Your task to perform on an android device: make emails show in primary in the gmail app Image 0: 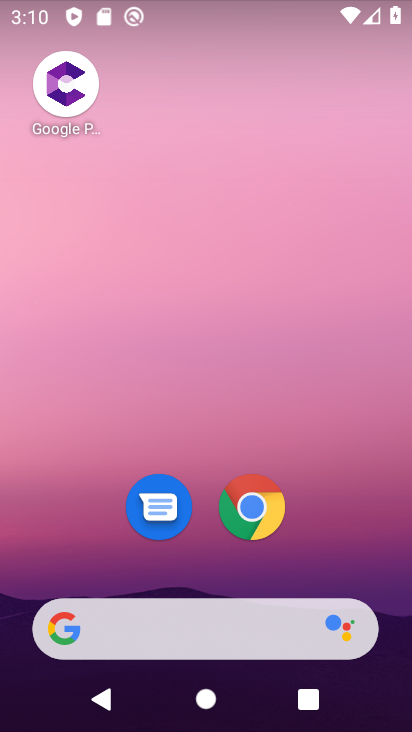
Step 0: drag from (345, 259) to (310, 25)
Your task to perform on an android device: make emails show in primary in the gmail app Image 1: 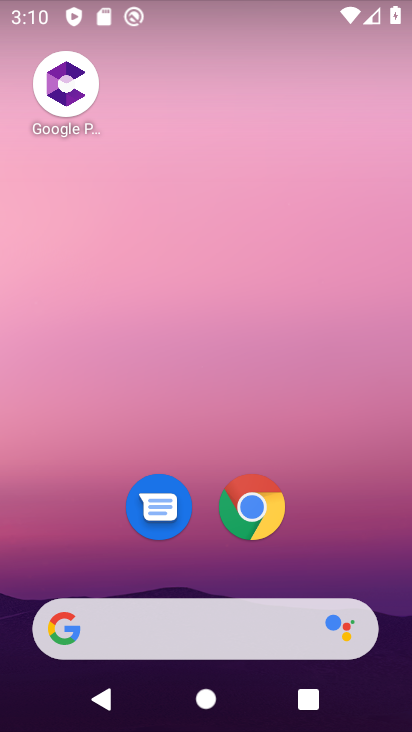
Step 1: drag from (320, 443) to (250, 11)
Your task to perform on an android device: make emails show in primary in the gmail app Image 2: 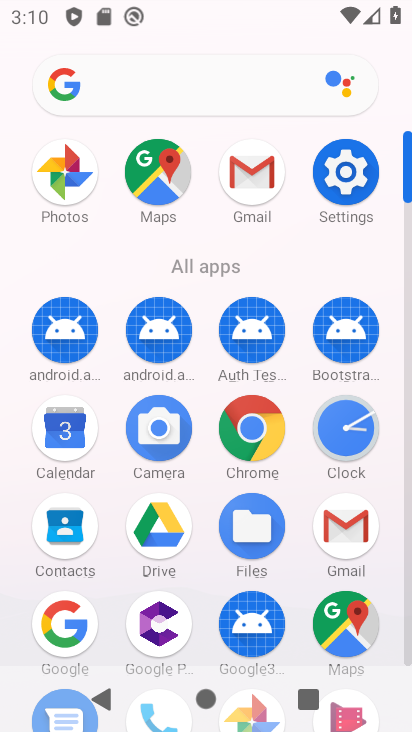
Step 2: click (248, 177)
Your task to perform on an android device: make emails show in primary in the gmail app Image 3: 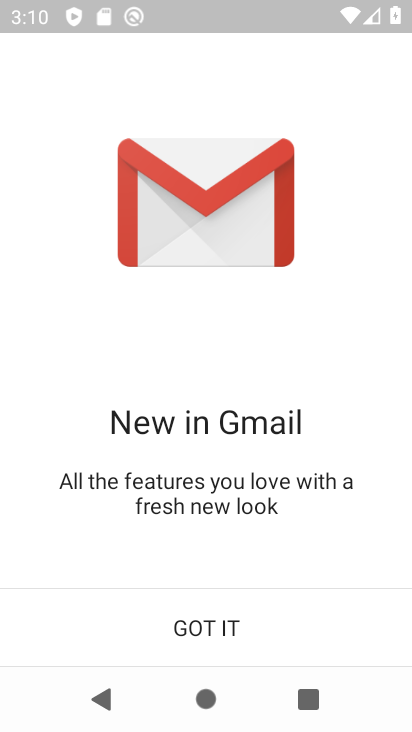
Step 3: click (196, 618)
Your task to perform on an android device: make emails show in primary in the gmail app Image 4: 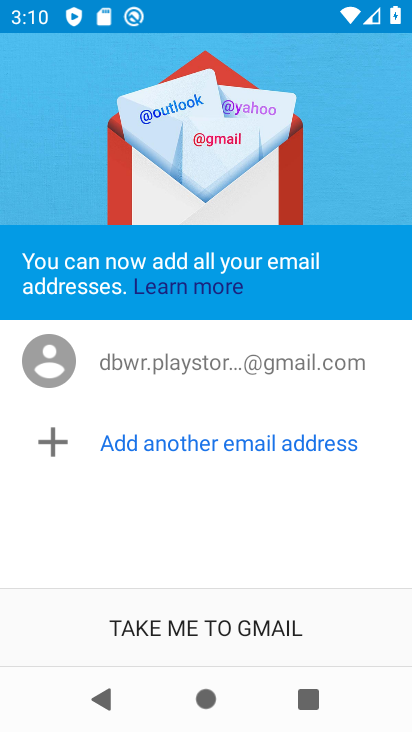
Step 4: click (210, 625)
Your task to perform on an android device: make emails show in primary in the gmail app Image 5: 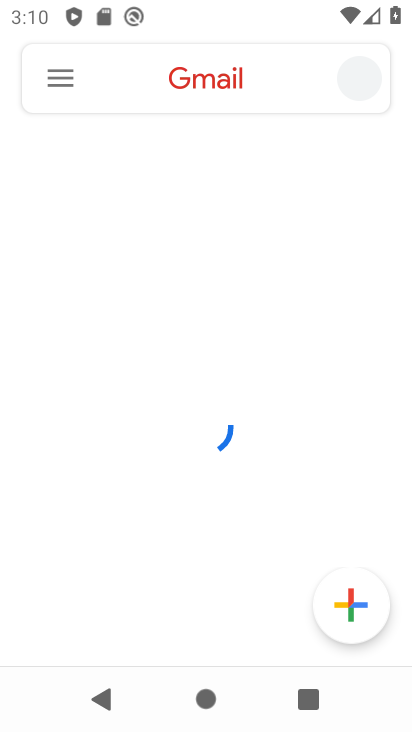
Step 5: click (53, 77)
Your task to perform on an android device: make emails show in primary in the gmail app Image 6: 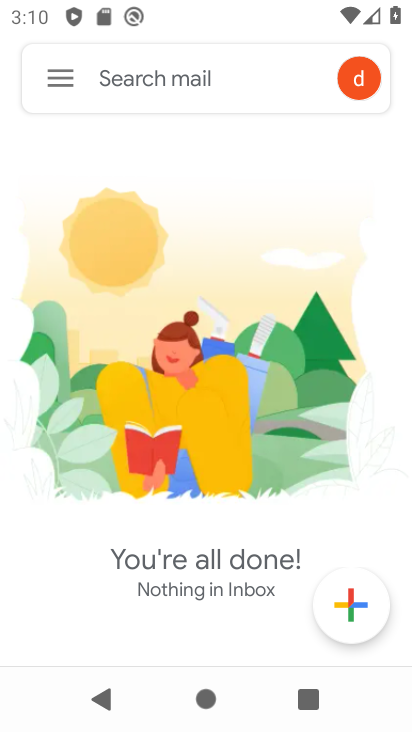
Step 6: click (56, 76)
Your task to perform on an android device: make emails show in primary in the gmail app Image 7: 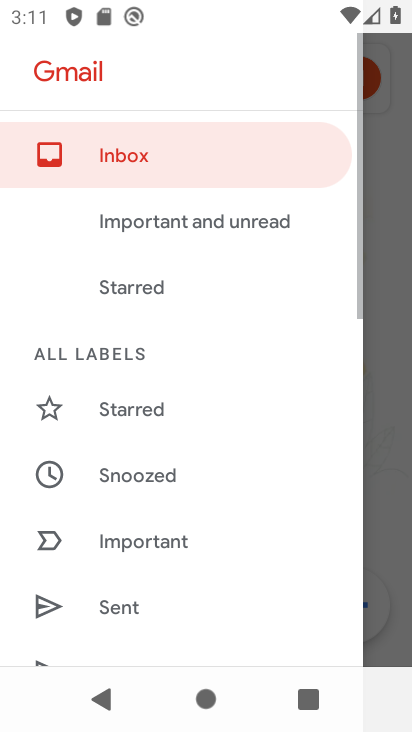
Step 7: drag from (237, 640) to (233, 0)
Your task to perform on an android device: make emails show in primary in the gmail app Image 8: 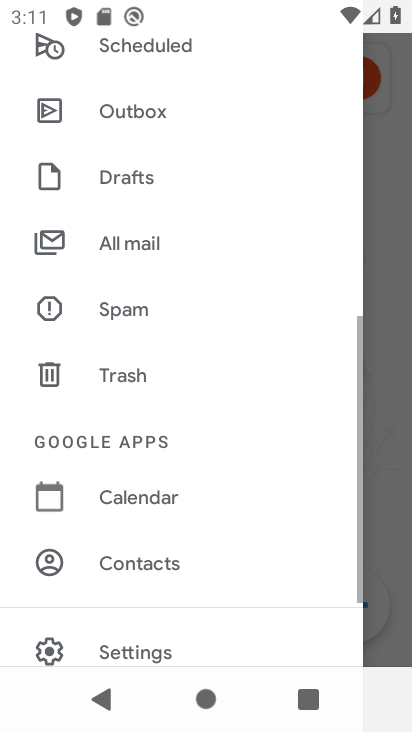
Step 8: click (170, 655)
Your task to perform on an android device: make emails show in primary in the gmail app Image 9: 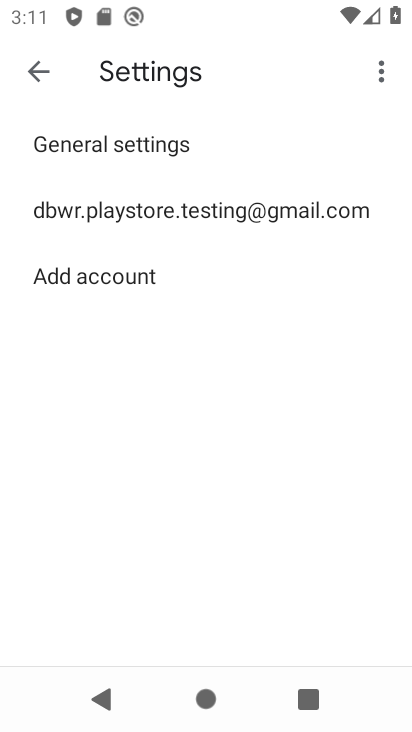
Step 9: click (134, 206)
Your task to perform on an android device: make emails show in primary in the gmail app Image 10: 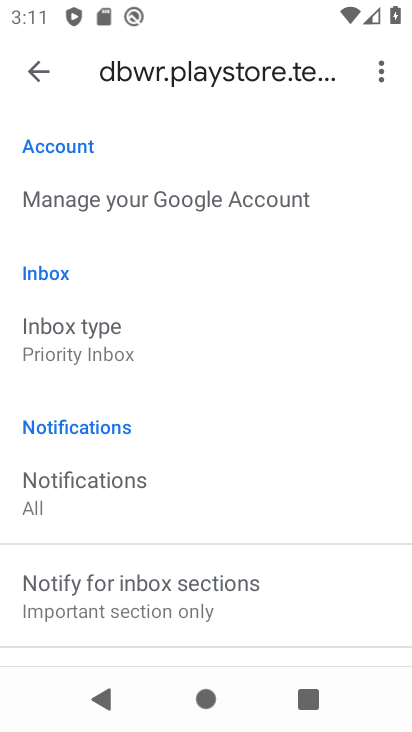
Step 10: click (38, 345)
Your task to perform on an android device: make emails show in primary in the gmail app Image 11: 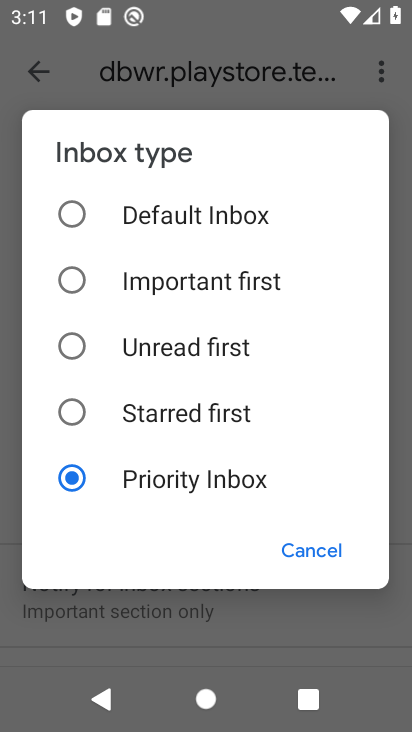
Step 11: click (76, 215)
Your task to perform on an android device: make emails show in primary in the gmail app Image 12: 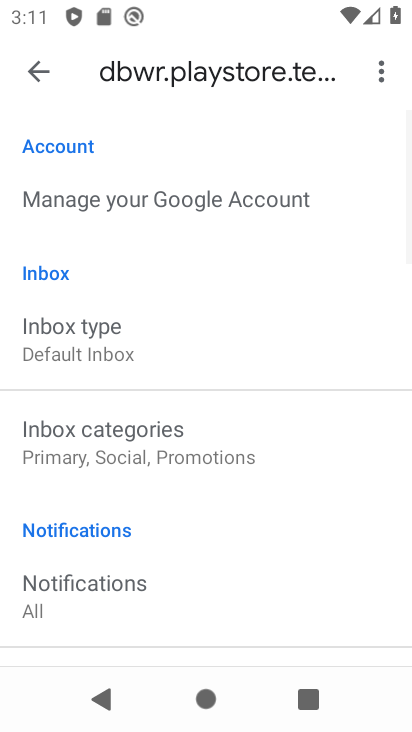
Step 12: click (112, 451)
Your task to perform on an android device: make emails show in primary in the gmail app Image 13: 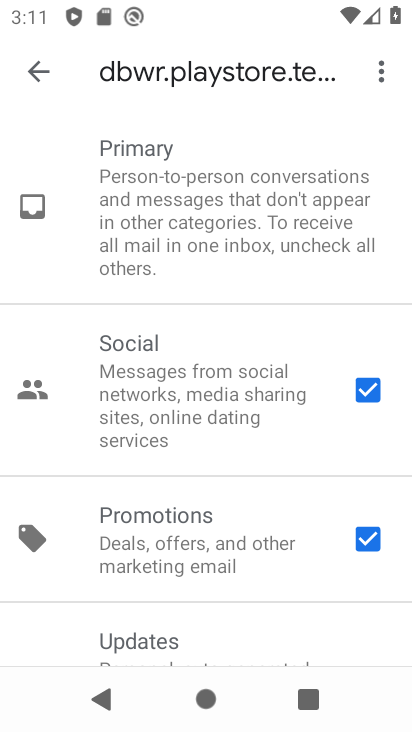
Step 13: click (361, 396)
Your task to perform on an android device: make emails show in primary in the gmail app Image 14: 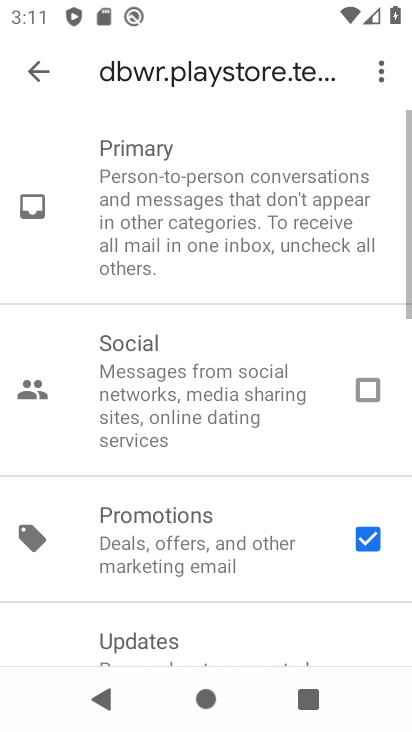
Step 14: click (361, 540)
Your task to perform on an android device: make emails show in primary in the gmail app Image 15: 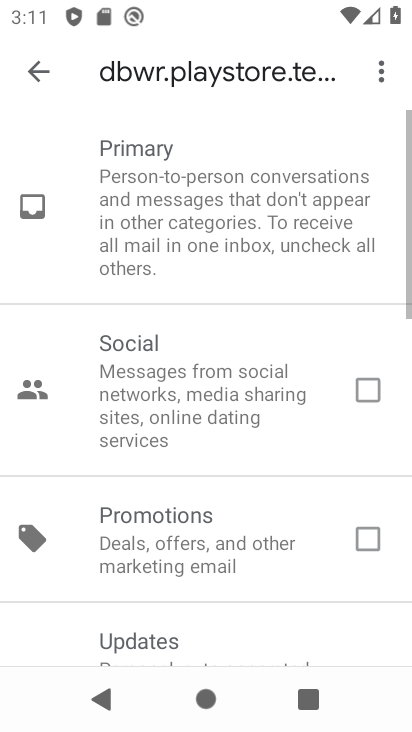
Step 15: task complete